Your task to perform on an android device: Open the map Image 0: 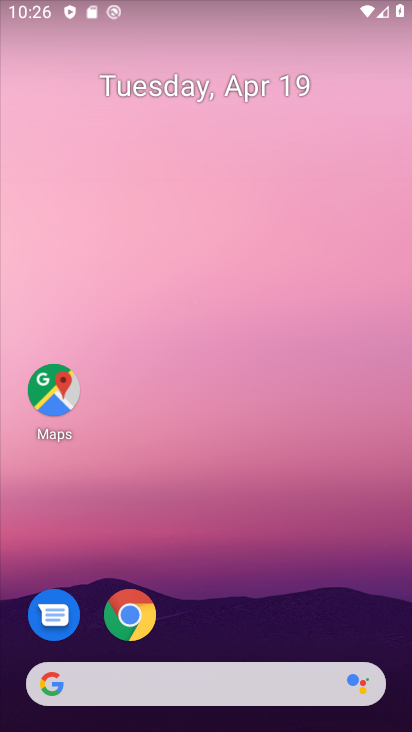
Step 0: click (28, 380)
Your task to perform on an android device: Open the map Image 1: 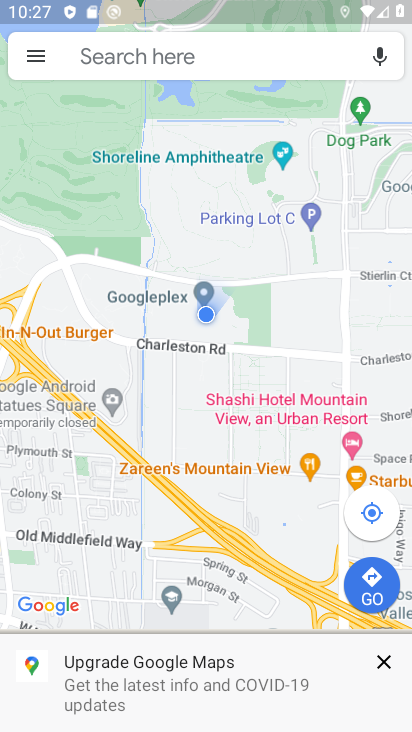
Step 1: task complete